Your task to perform on an android device: Open Android settings Image 0: 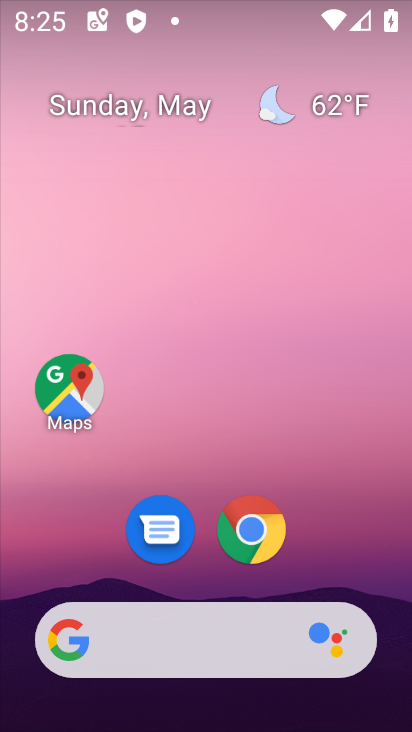
Step 0: drag from (369, 578) to (368, 178)
Your task to perform on an android device: Open Android settings Image 1: 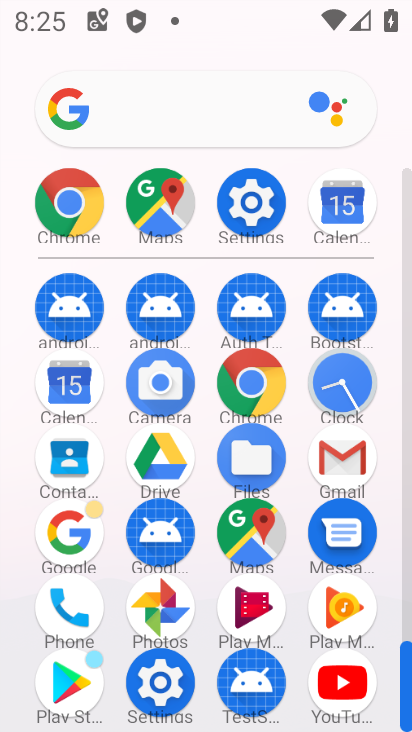
Step 1: click (151, 689)
Your task to perform on an android device: Open Android settings Image 2: 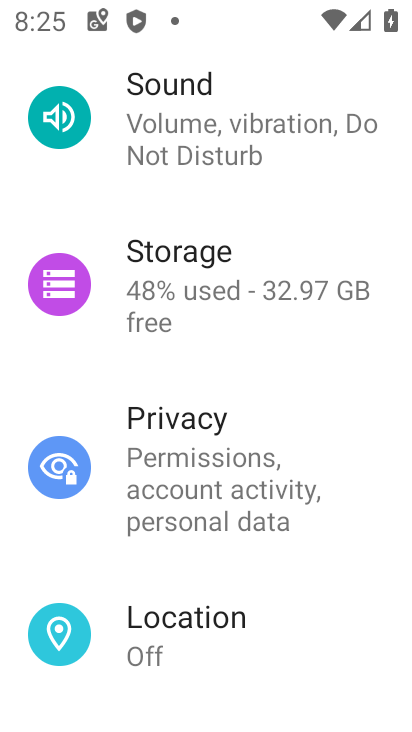
Step 2: drag from (234, 658) to (375, 170)
Your task to perform on an android device: Open Android settings Image 3: 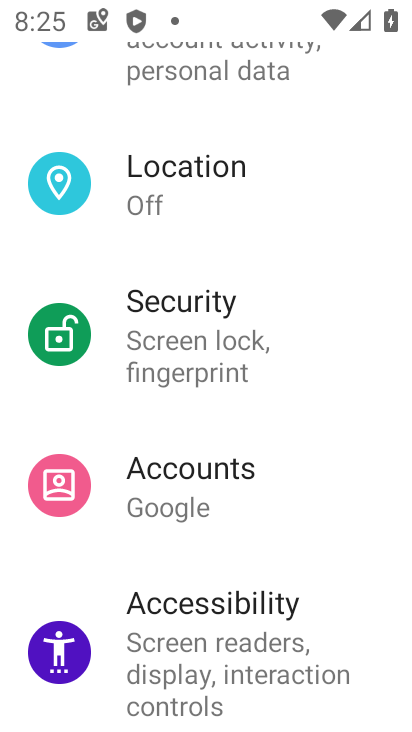
Step 3: drag from (316, 691) to (334, 252)
Your task to perform on an android device: Open Android settings Image 4: 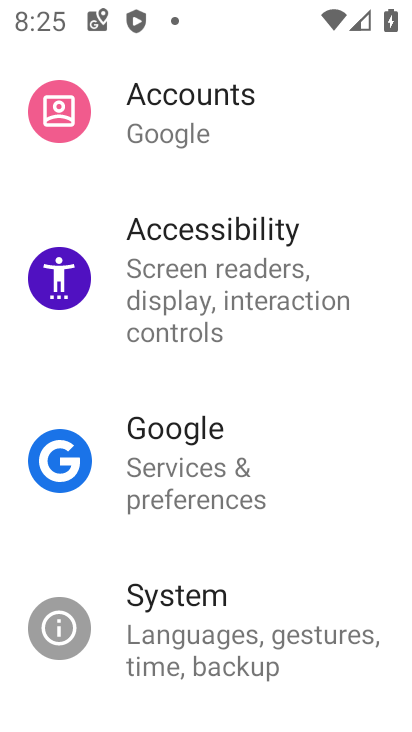
Step 4: drag from (284, 717) to (311, 204)
Your task to perform on an android device: Open Android settings Image 5: 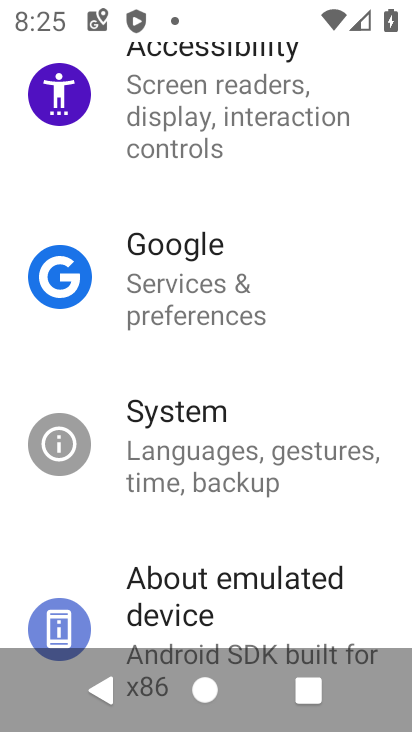
Step 5: click (279, 593)
Your task to perform on an android device: Open Android settings Image 6: 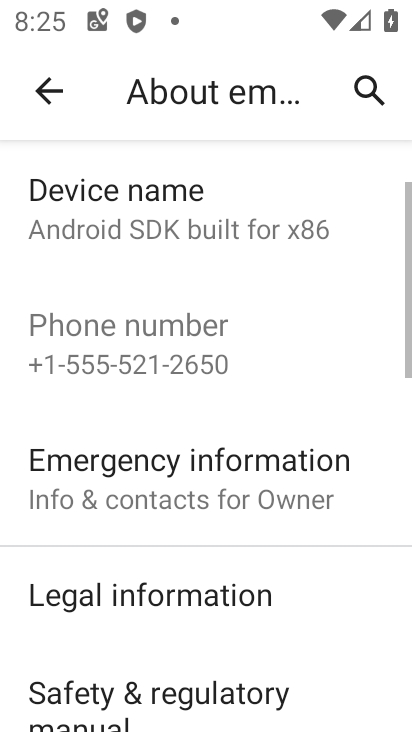
Step 6: task complete